Your task to perform on an android device: turn off priority inbox in the gmail app Image 0: 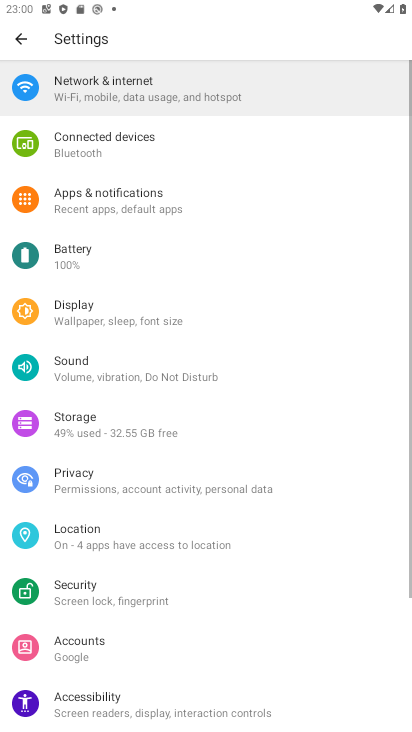
Step 0: press home button
Your task to perform on an android device: turn off priority inbox in the gmail app Image 1: 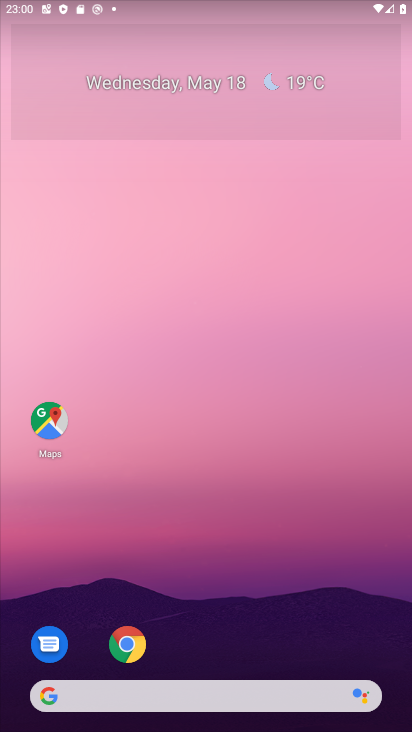
Step 1: drag from (290, 628) to (299, 223)
Your task to perform on an android device: turn off priority inbox in the gmail app Image 2: 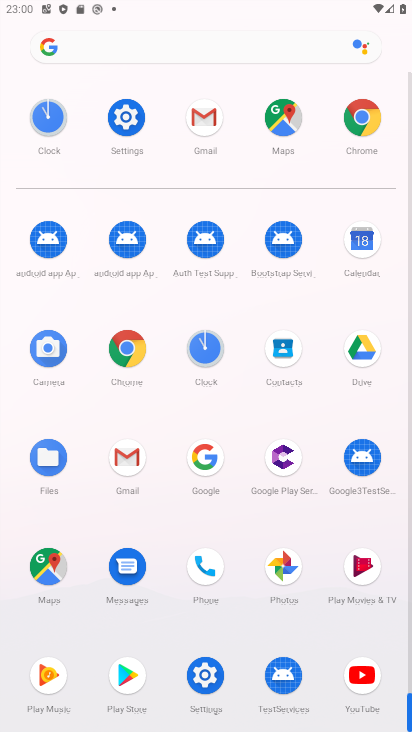
Step 2: click (197, 118)
Your task to perform on an android device: turn off priority inbox in the gmail app Image 3: 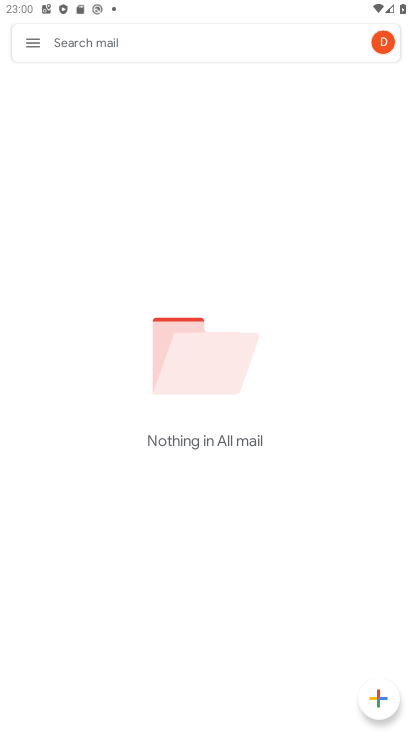
Step 3: click (32, 49)
Your task to perform on an android device: turn off priority inbox in the gmail app Image 4: 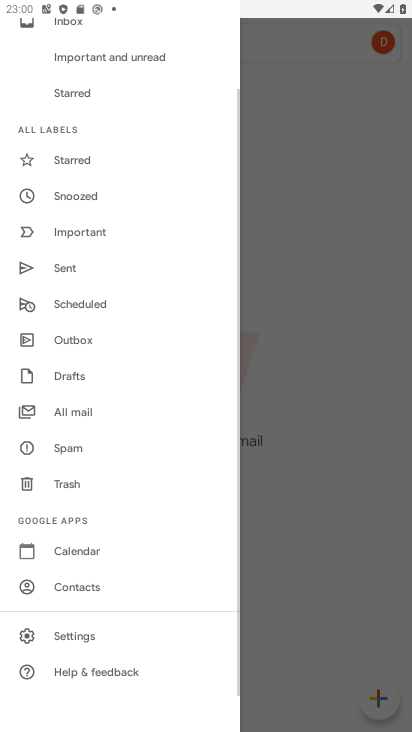
Step 4: drag from (110, 611) to (193, 265)
Your task to perform on an android device: turn off priority inbox in the gmail app Image 5: 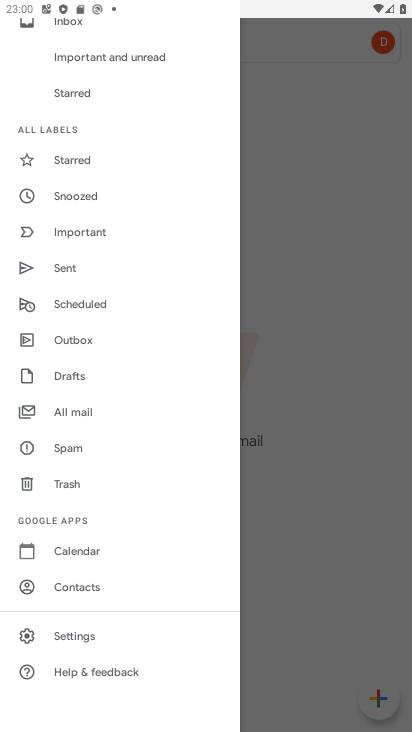
Step 5: click (95, 636)
Your task to perform on an android device: turn off priority inbox in the gmail app Image 6: 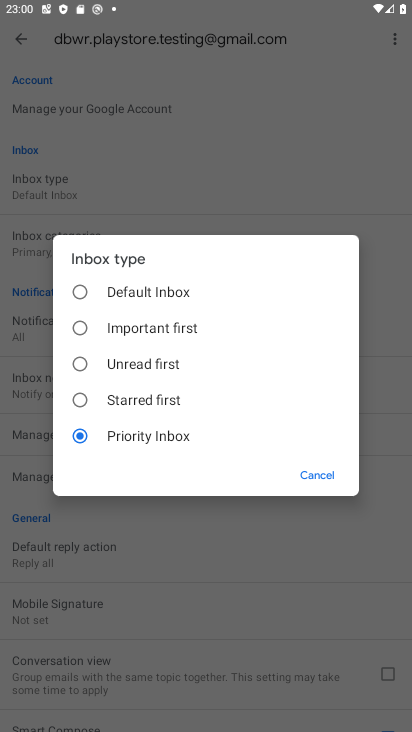
Step 6: click (339, 476)
Your task to perform on an android device: turn off priority inbox in the gmail app Image 7: 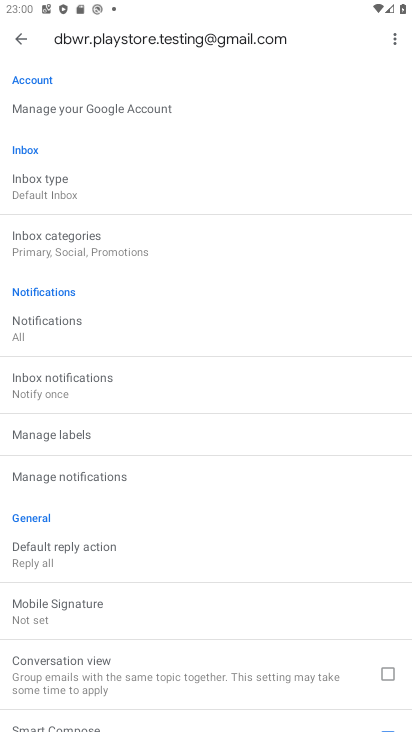
Step 7: drag from (151, 222) to (240, 607)
Your task to perform on an android device: turn off priority inbox in the gmail app Image 8: 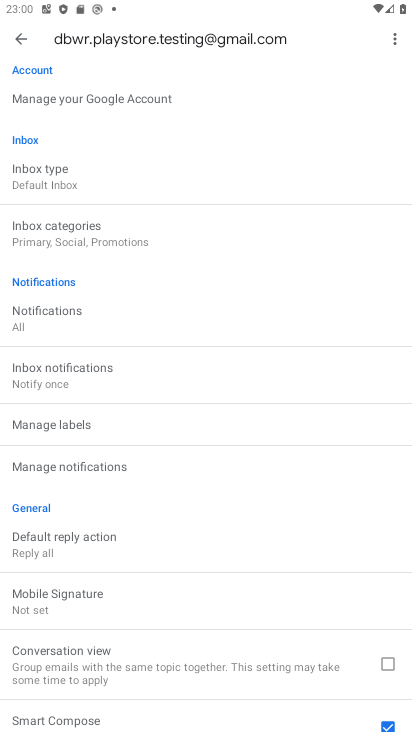
Step 8: click (74, 183)
Your task to perform on an android device: turn off priority inbox in the gmail app Image 9: 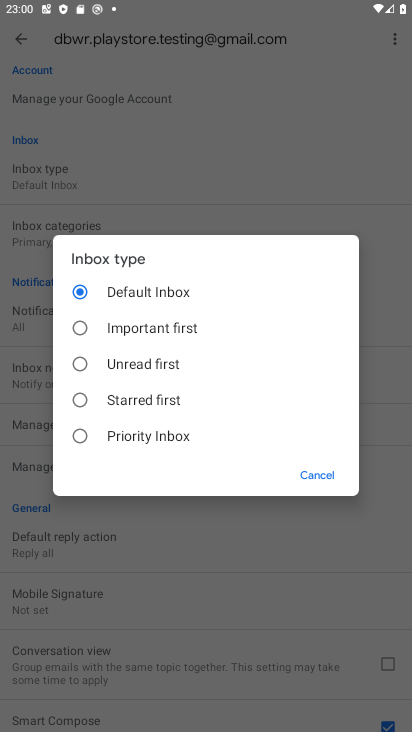
Step 9: task complete